Your task to perform on an android device: open a bookmark in the chrome app Image 0: 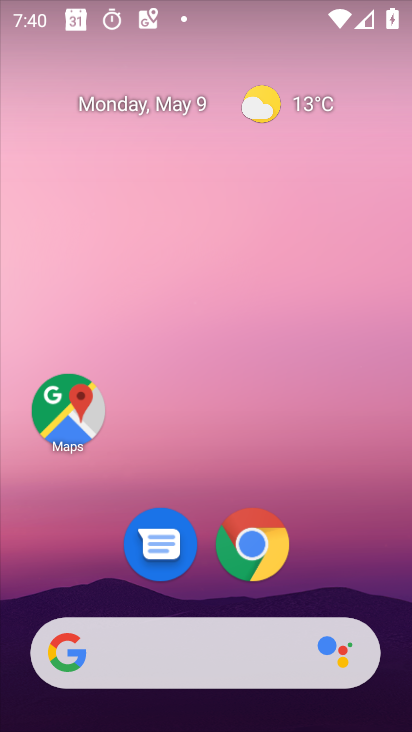
Step 0: drag from (398, 551) to (371, 108)
Your task to perform on an android device: open a bookmark in the chrome app Image 1: 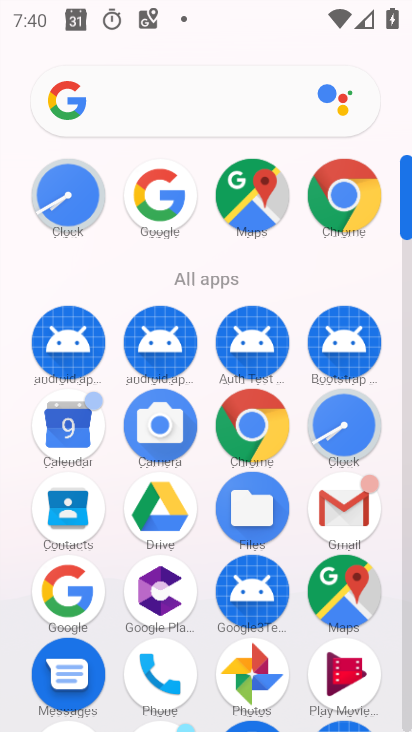
Step 1: click (337, 206)
Your task to perform on an android device: open a bookmark in the chrome app Image 2: 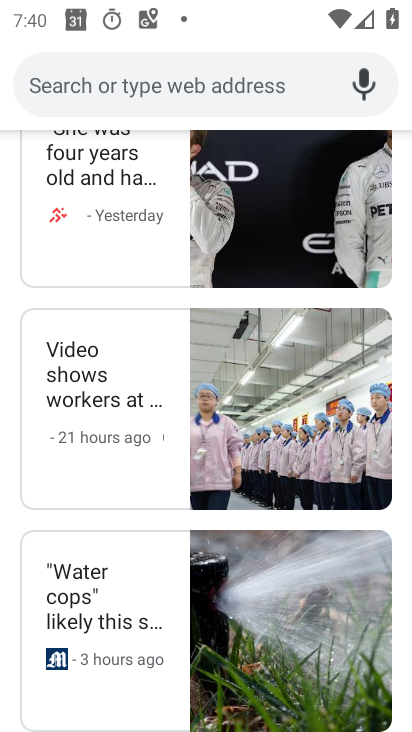
Step 2: drag from (322, 175) to (334, 505)
Your task to perform on an android device: open a bookmark in the chrome app Image 3: 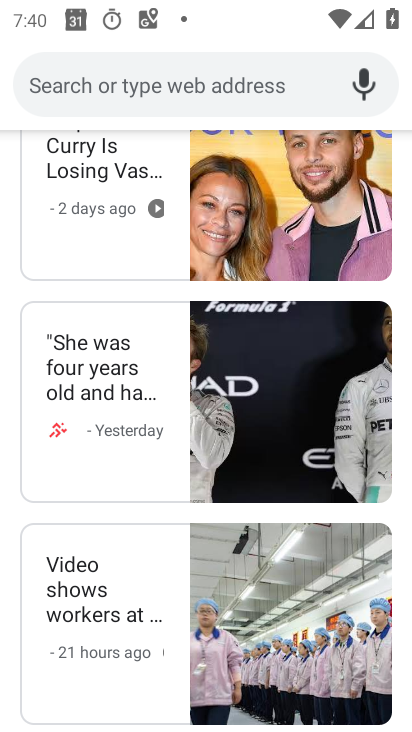
Step 3: drag from (314, 175) to (307, 587)
Your task to perform on an android device: open a bookmark in the chrome app Image 4: 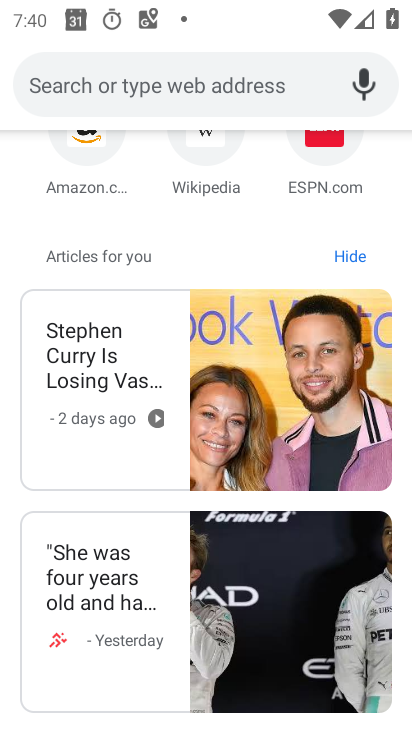
Step 4: click (335, 642)
Your task to perform on an android device: open a bookmark in the chrome app Image 5: 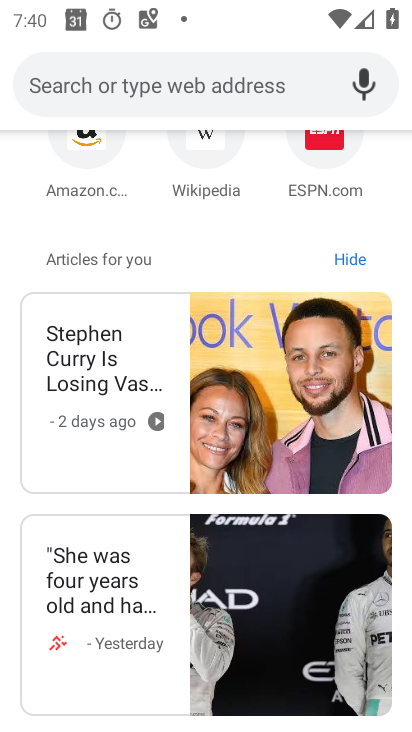
Step 5: task complete